Your task to perform on an android device: search for starred emails in the gmail app Image 0: 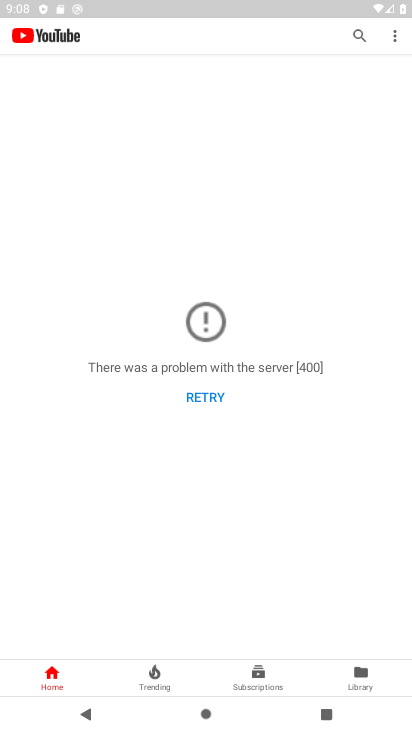
Step 0: press home button
Your task to perform on an android device: search for starred emails in the gmail app Image 1: 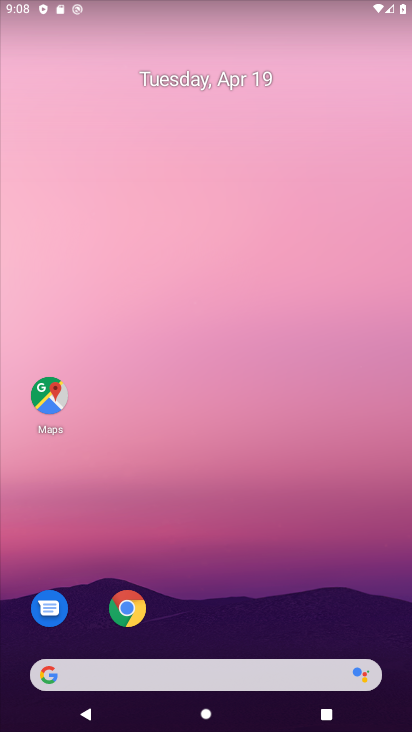
Step 1: drag from (362, 584) to (296, 146)
Your task to perform on an android device: search for starred emails in the gmail app Image 2: 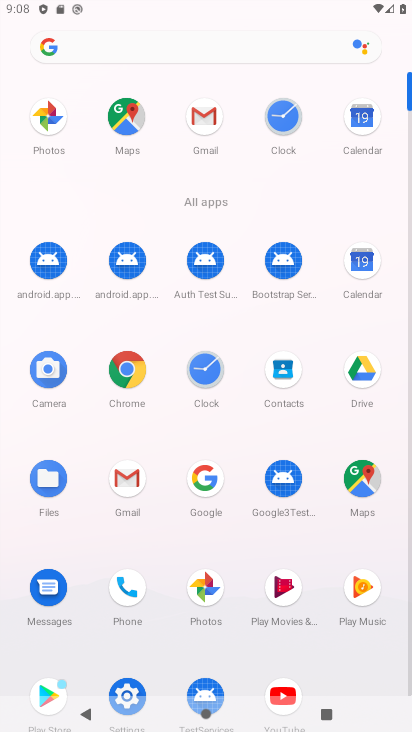
Step 2: click (126, 479)
Your task to perform on an android device: search for starred emails in the gmail app Image 3: 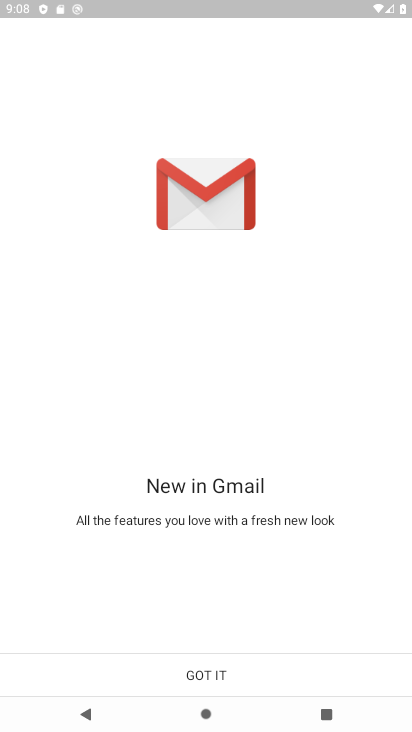
Step 3: click (193, 671)
Your task to perform on an android device: search for starred emails in the gmail app Image 4: 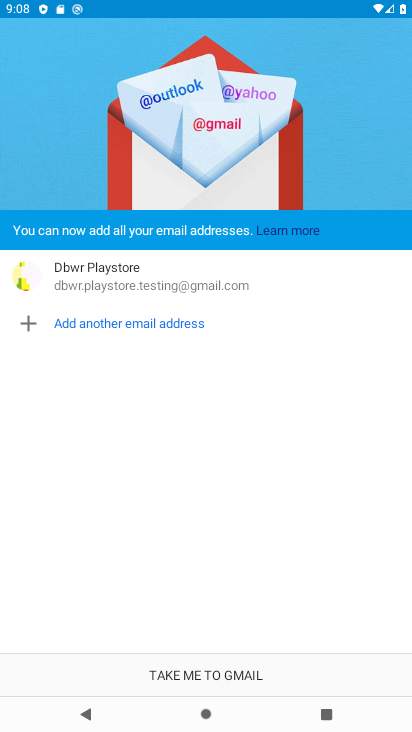
Step 4: click (193, 671)
Your task to perform on an android device: search for starred emails in the gmail app Image 5: 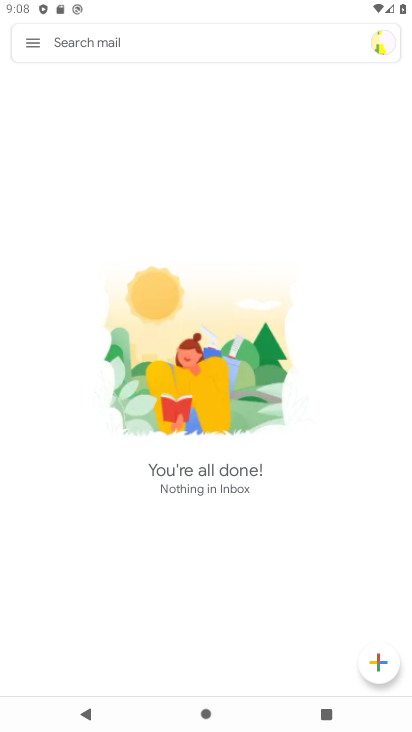
Step 5: click (27, 36)
Your task to perform on an android device: search for starred emails in the gmail app Image 6: 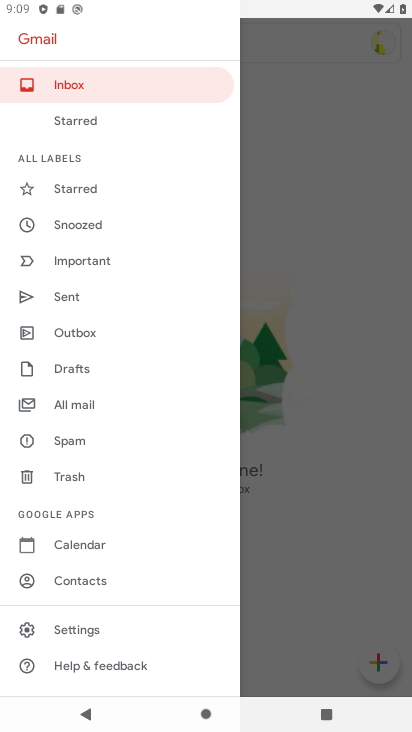
Step 6: click (75, 184)
Your task to perform on an android device: search for starred emails in the gmail app Image 7: 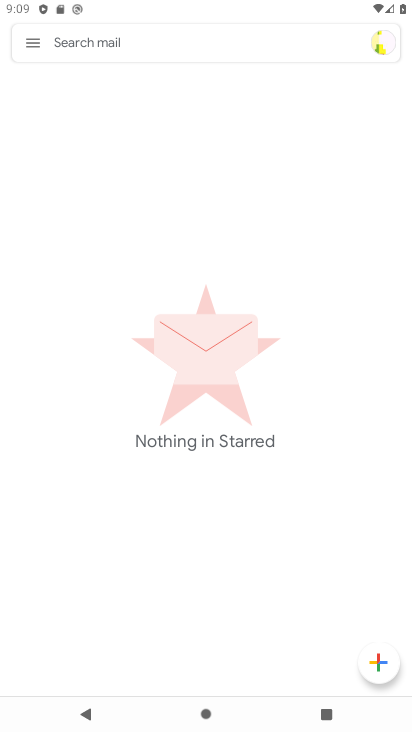
Step 7: task complete